Your task to perform on an android device: View the shopping cart on walmart.com. Add "acer predator" to the cart on walmart.com, then select checkout. Image 0: 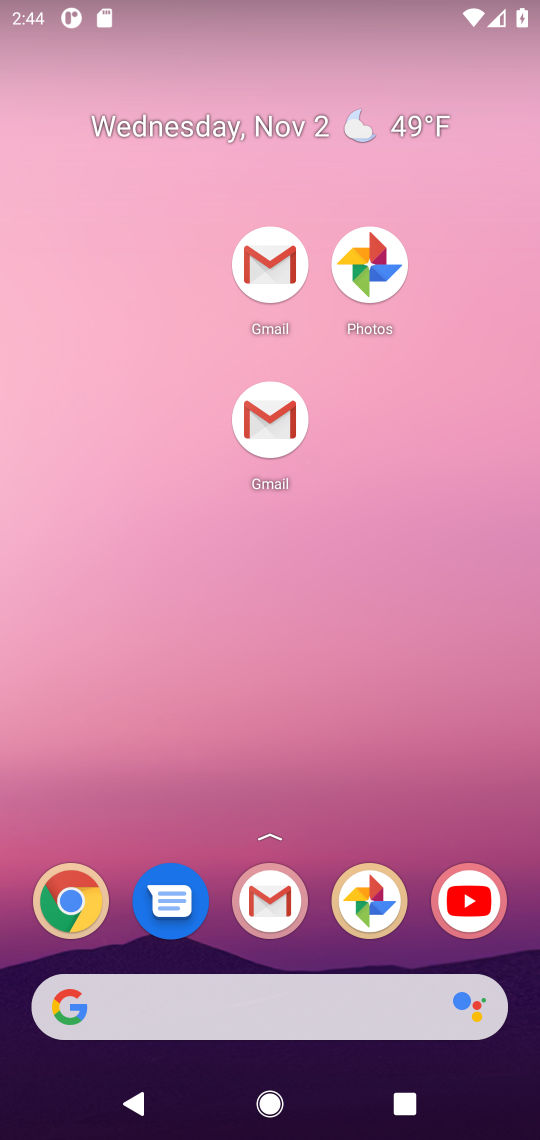
Step 0: drag from (342, 827) to (393, 176)
Your task to perform on an android device: View the shopping cart on walmart.com. Add "acer predator" to the cart on walmart.com, then select checkout. Image 1: 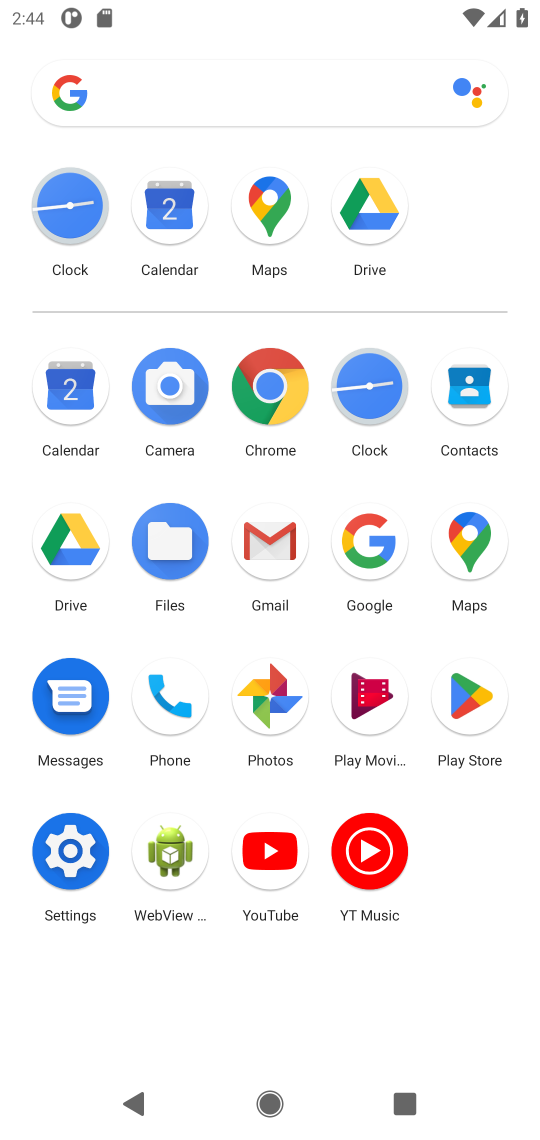
Step 1: click (262, 383)
Your task to perform on an android device: View the shopping cart on walmart.com. Add "acer predator" to the cart on walmart.com, then select checkout. Image 2: 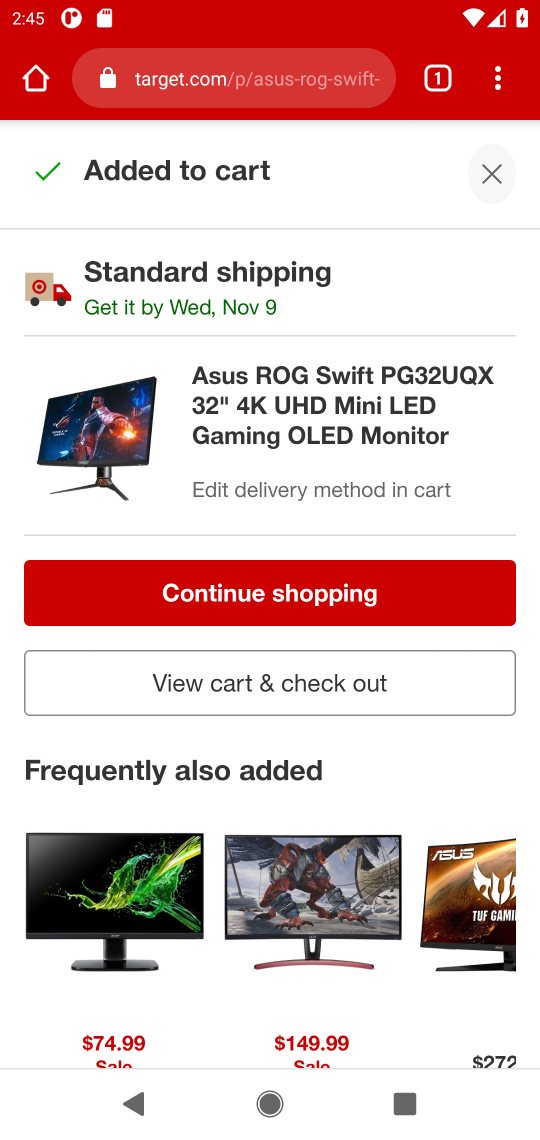
Step 2: click (286, 73)
Your task to perform on an android device: View the shopping cart on walmart.com. Add "acer predator" to the cart on walmart.com, then select checkout. Image 3: 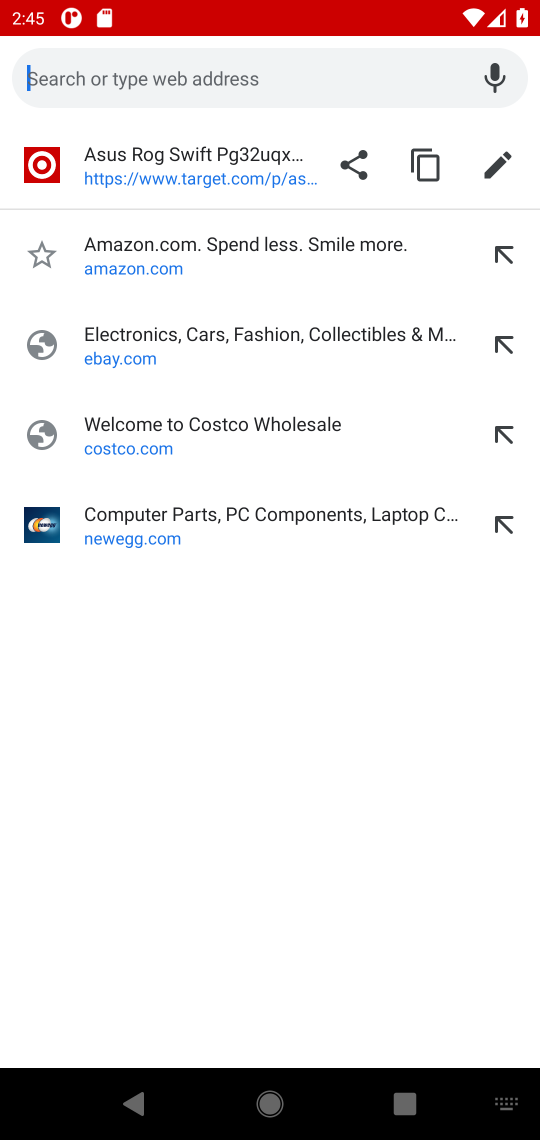
Step 3: type "walmart.com"
Your task to perform on an android device: View the shopping cart on walmart.com. Add "acer predator" to the cart on walmart.com, then select checkout. Image 4: 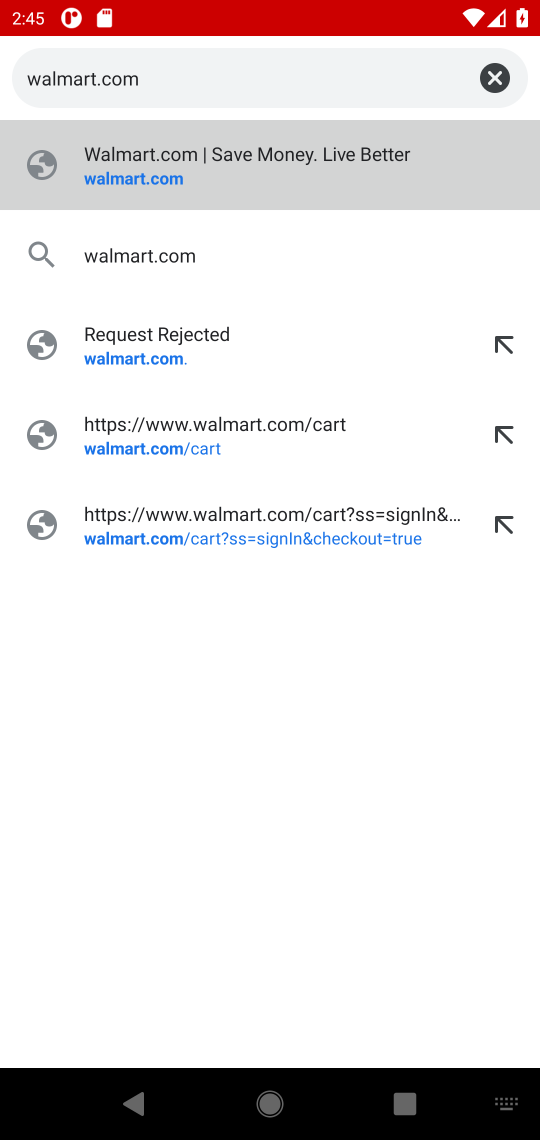
Step 4: press enter
Your task to perform on an android device: View the shopping cart on walmart.com. Add "acer predator" to the cart on walmart.com, then select checkout. Image 5: 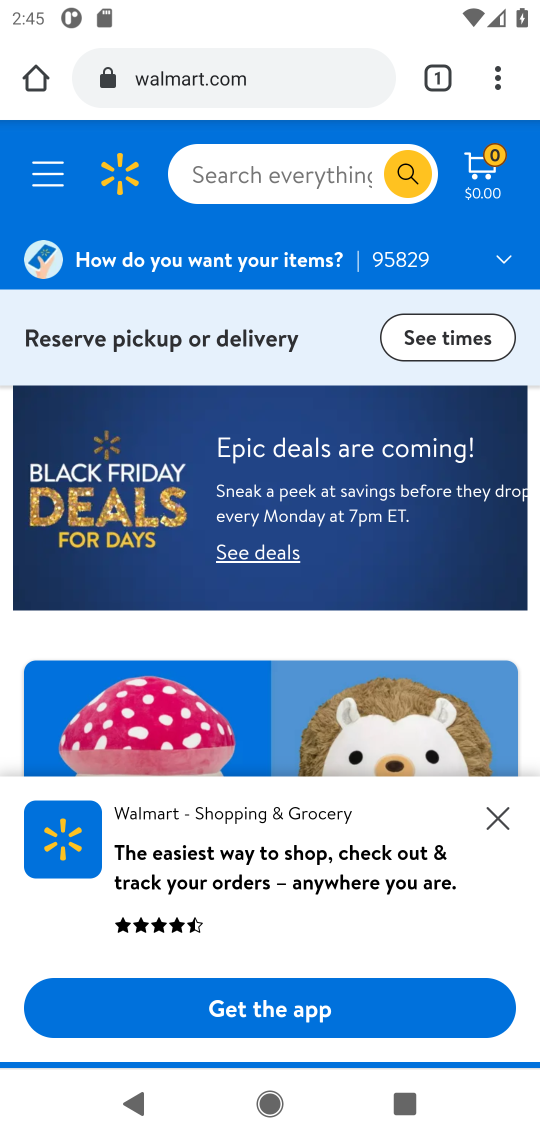
Step 5: click (338, 181)
Your task to perform on an android device: View the shopping cart on walmart.com. Add "acer predator" to the cart on walmart.com, then select checkout. Image 6: 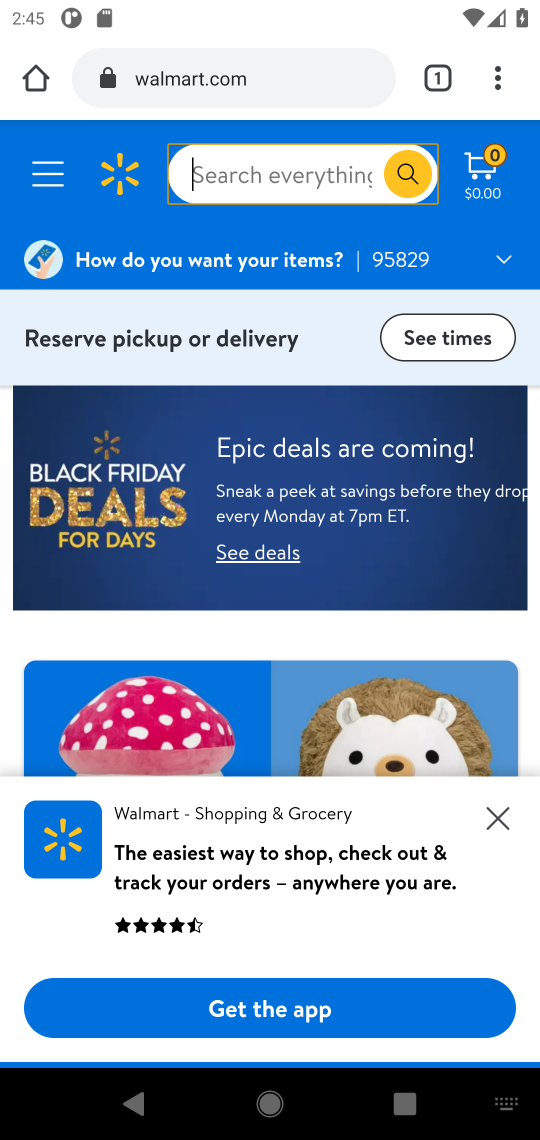
Step 6: type "acer predator"
Your task to perform on an android device: View the shopping cart on walmart.com. Add "acer predator" to the cart on walmart.com, then select checkout. Image 7: 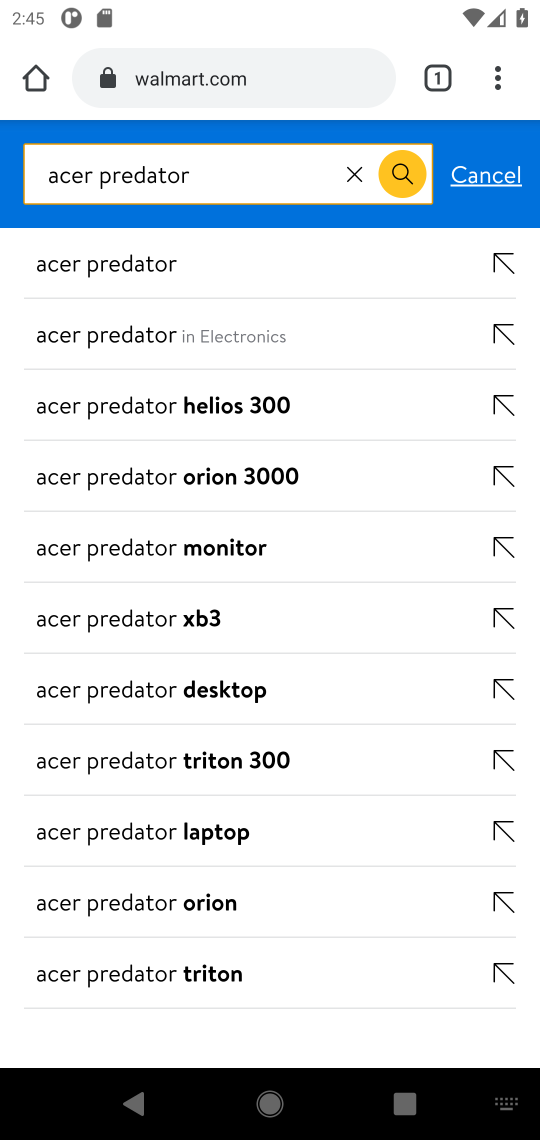
Step 7: press enter
Your task to perform on an android device: View the shopping cart on walmart.com. Add "acer predator" to the cart on walmart.com, then select checkout. Image 8: 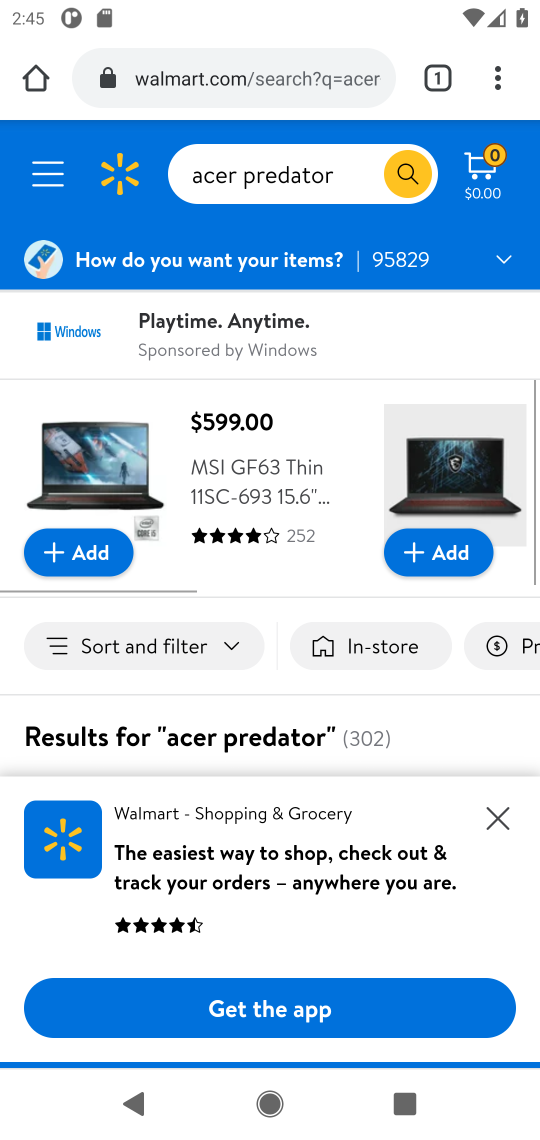
Step 8: drag from (262, 726) to (251, 169)
Your task to perform on an android device: View the shopping cart on walmart.com. Add "acer predator" to the cart on walmart.com, then select checkout. Image 9: 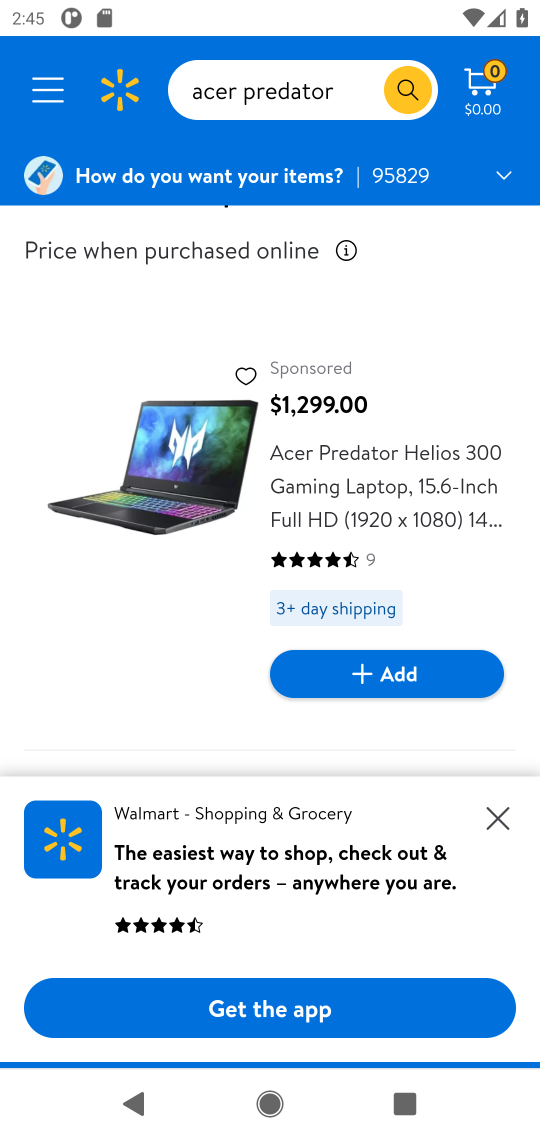
Step 9: click (371, 679)
Your task to perform on an android device: View the shopping cart on walmart.com. Add "acer predator" to the cart on walmart.com, then select checkout. Image 10: 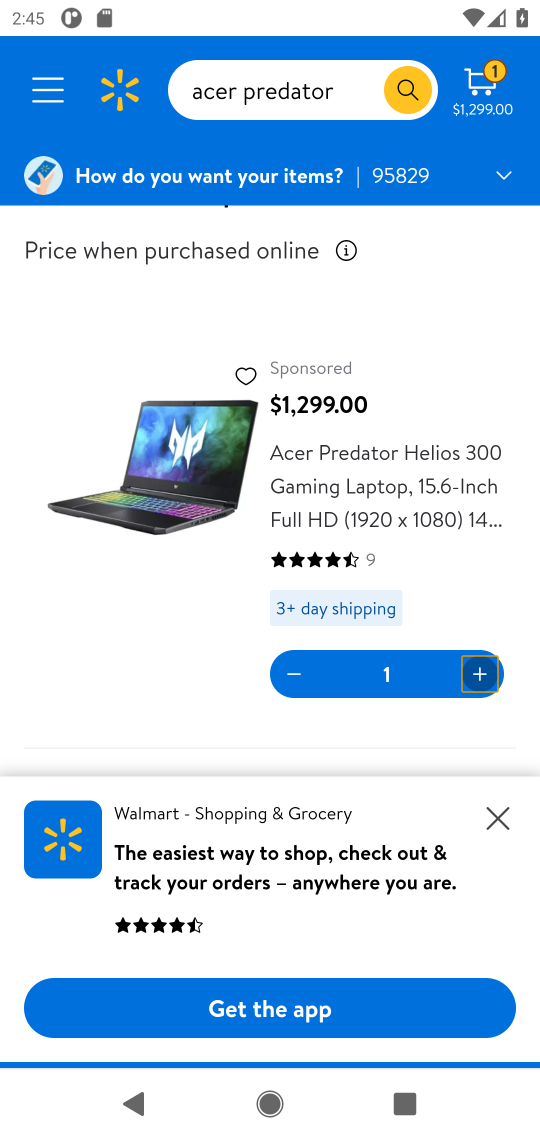
Step 10: drag from (391, 670) to (366, 150)
Your task to perform on an android device: View the shopping cart on walmart.com. Add "acer predator" to the cart on walmart.com, then select checkout. Image 11: 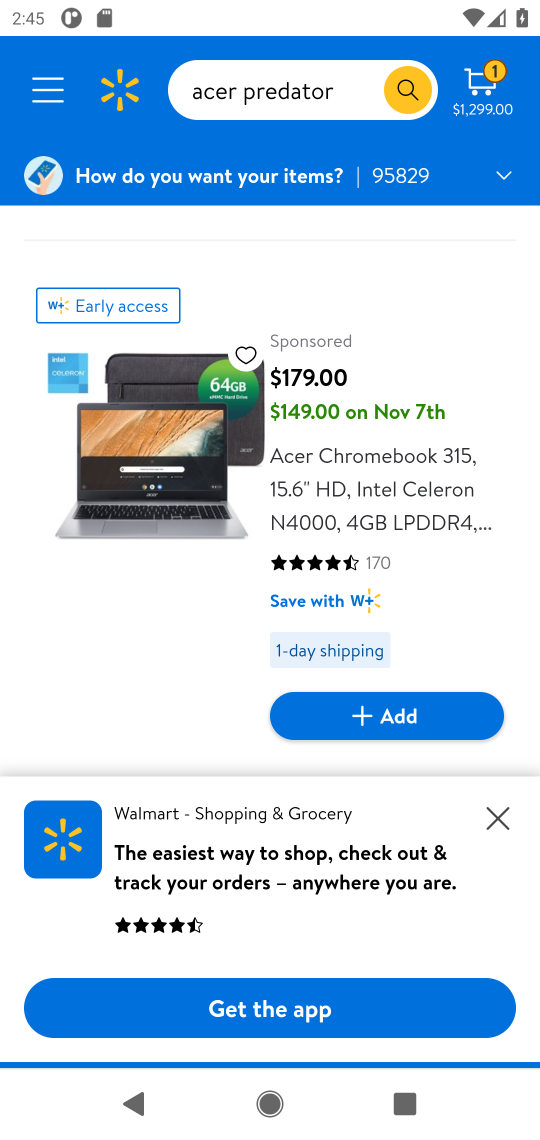
Step 11: drag from (350, 451) to (374, 874)
Your task to perform on an android device: View the shopping cart on walmart.com. Add "acer predator" to the cart on walmart.com, then select checkout. Image 12: 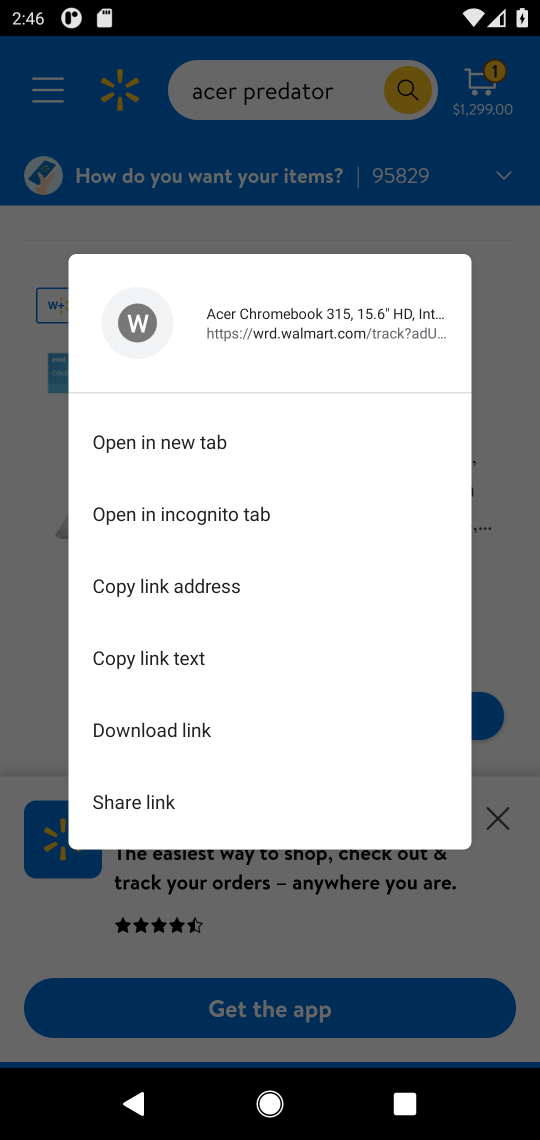
Step 12: click (517, 387)
Your task to perform on an android device: View the shopping cart on walmart.com. Add "acer predator" to the cart on walmart.com, then select checkout. Image 13: 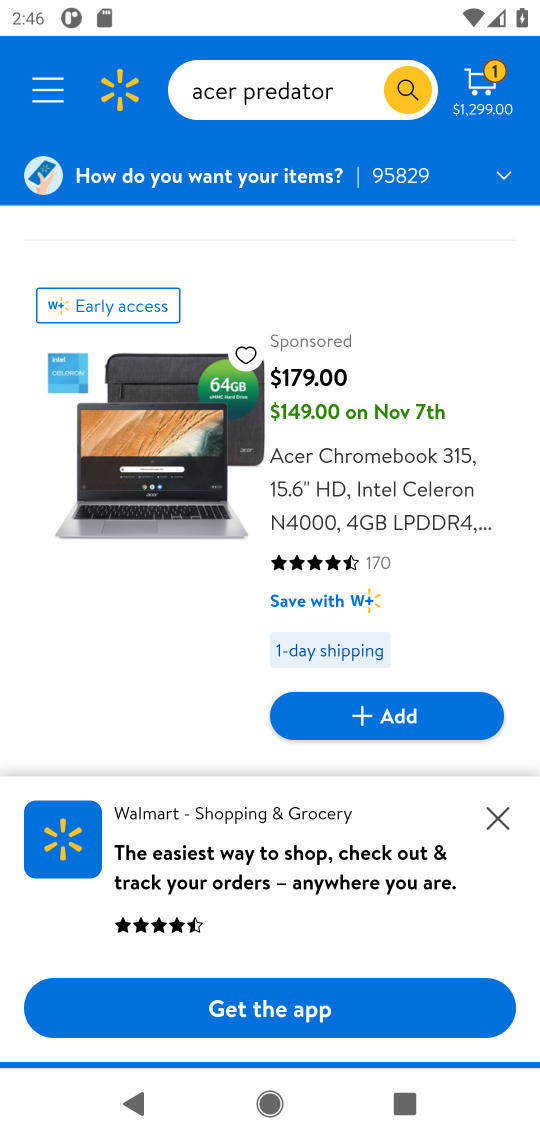
Step 13: drag from (405, 323) to (329, 797)
Your task to perform on an android device: View the shopping cart on walmart.com. Add "acer predator" to the cart on walmart.com, then select checkout. Image 14: 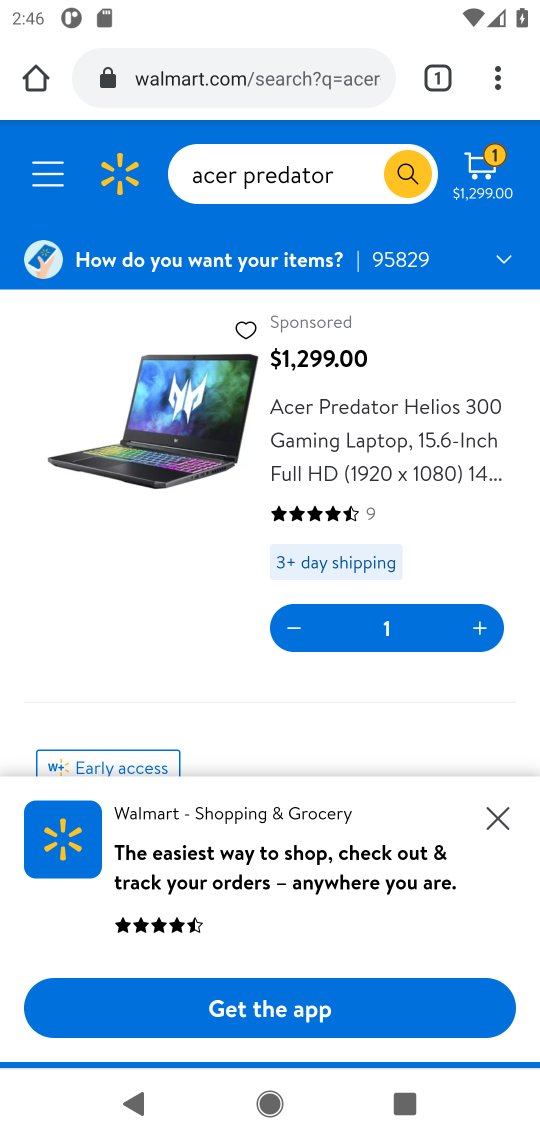
Step 14: click (287, 633)
Your task to perform on an android device: View the shopping cart on walmart.com. Add "acer predator" to the cart on walmart.com, then select checkout. Image 15: 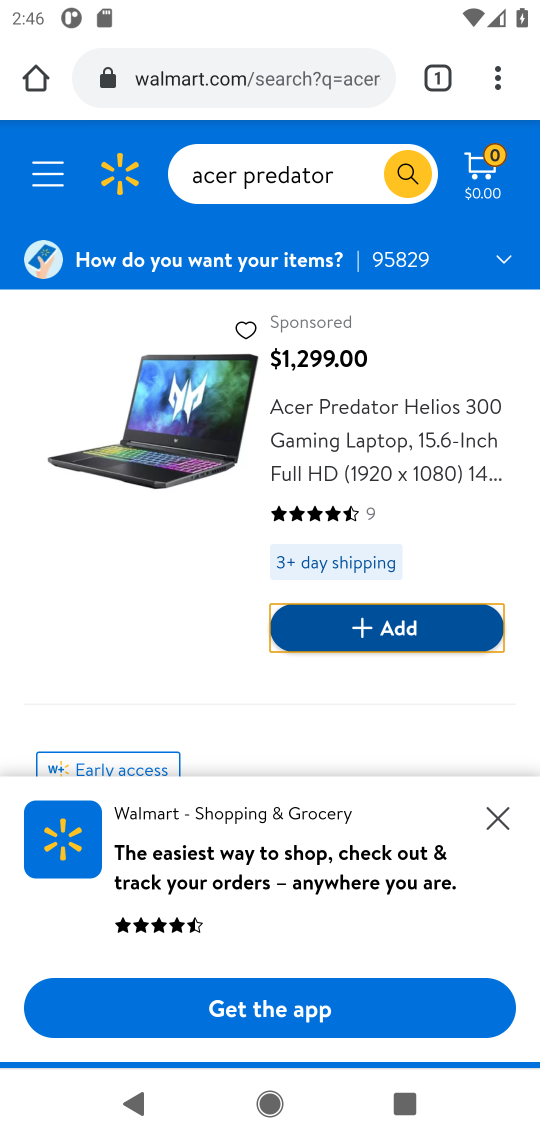
Step 15: drag from (353, 715) to (358, 90)
Your task to perform on an android device: View the shopping cart on walmart.com. Add "acer predator" to the cart on walmart.com, then select checkout. Image 16: 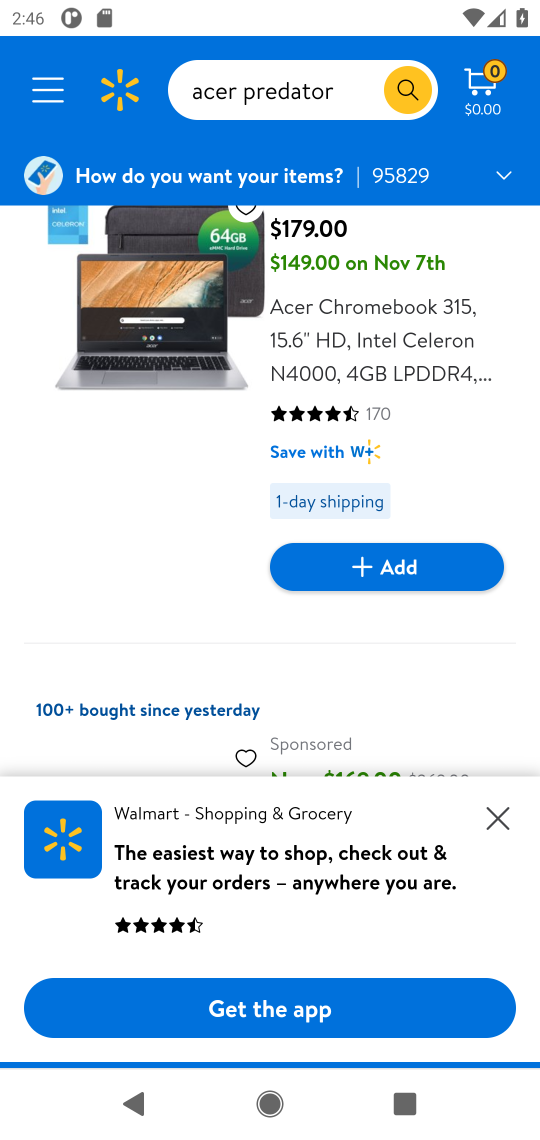
Step 16: drag from (324, 721) to (315, 199)
Your task to perform on an android device: View the shopping cart on walmart.com. Add "acer predator" to the cart on walmart.com, then select checkout. Image 17: 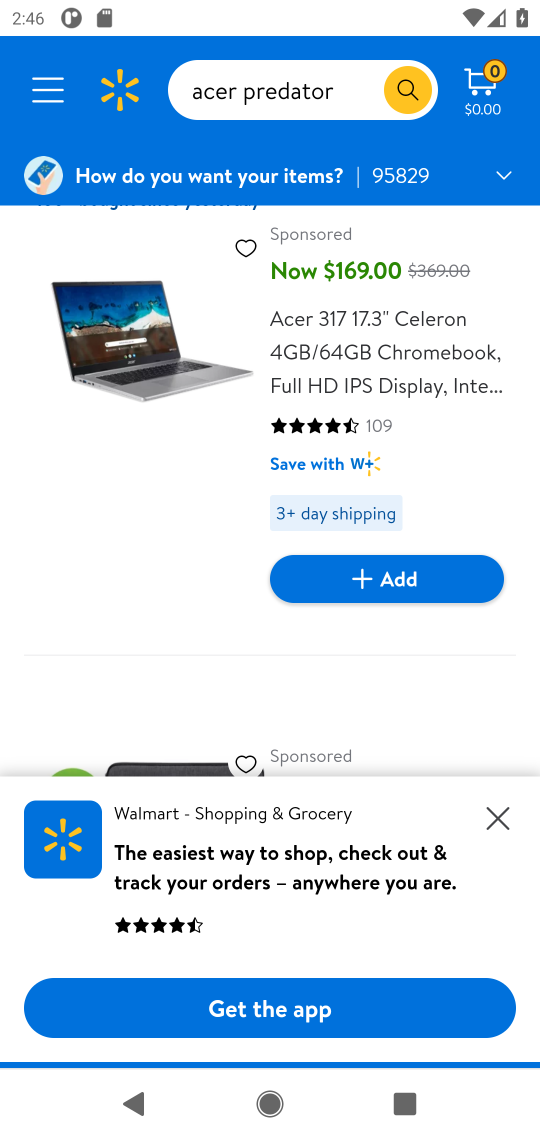
Step 17: drag from (234, 720) to (234, 260)
Your task to perform on an android device: View the shopping cart on walmart.com. Add "acer predator" to the cart on walmart.com, then select checkout. Image 18: 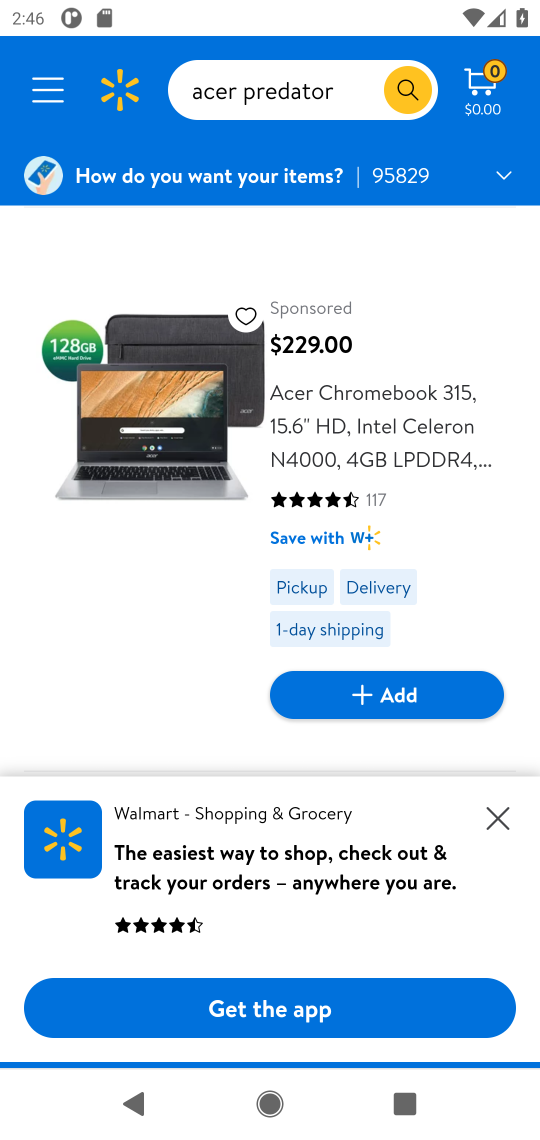
Step 18: drag from (203, 681) to (189, 235)
Your task to perform on an android device: View the shopping cart on walmart.com. Add "acer predator" to the cart on walmart.com, then select checkout. Image 19: 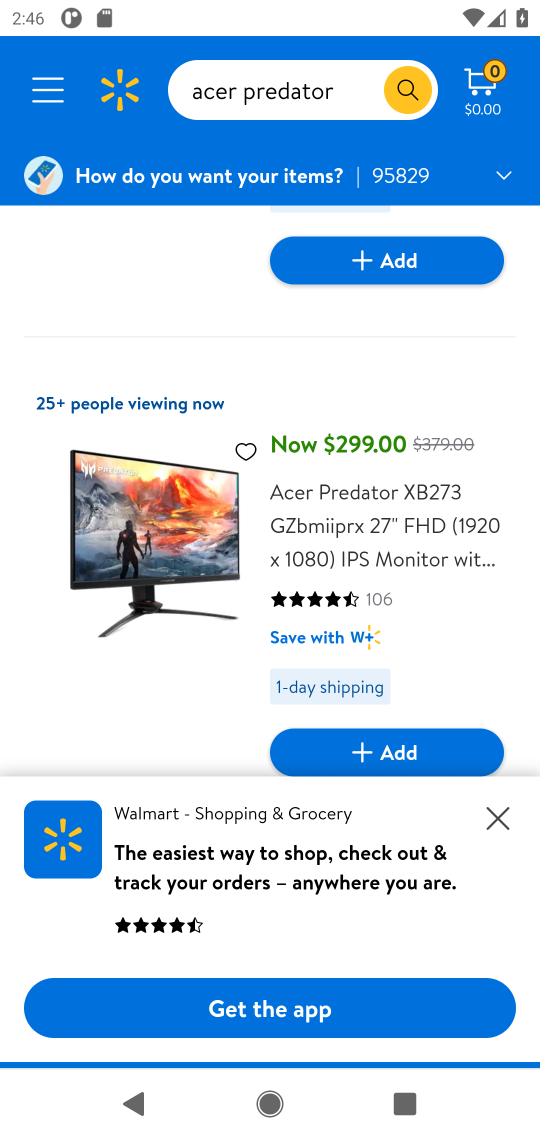
Step 19: click (429, 770)
Your task to perform on an android device: View the shopping cart on walmart.com. Add "acer predator" to the cart on walmart.com, then select checkout. Image 20: 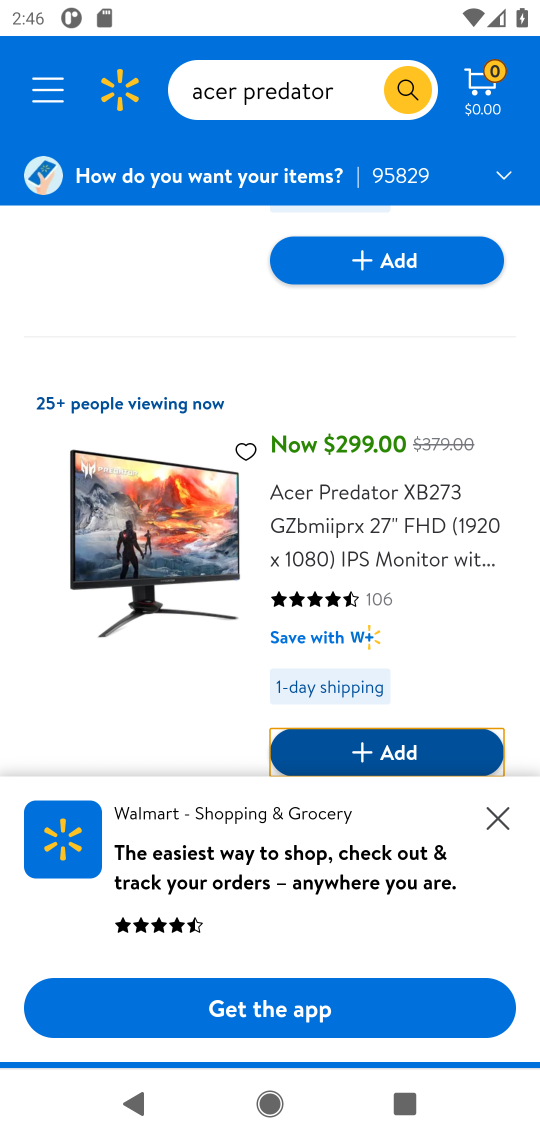
Step 20: click (411, 756)
Your task to perform on an android device: View the shopping cart on walmart.com. Add "acer predator" to the cart on walmart.com, then select checkout. Image 21: 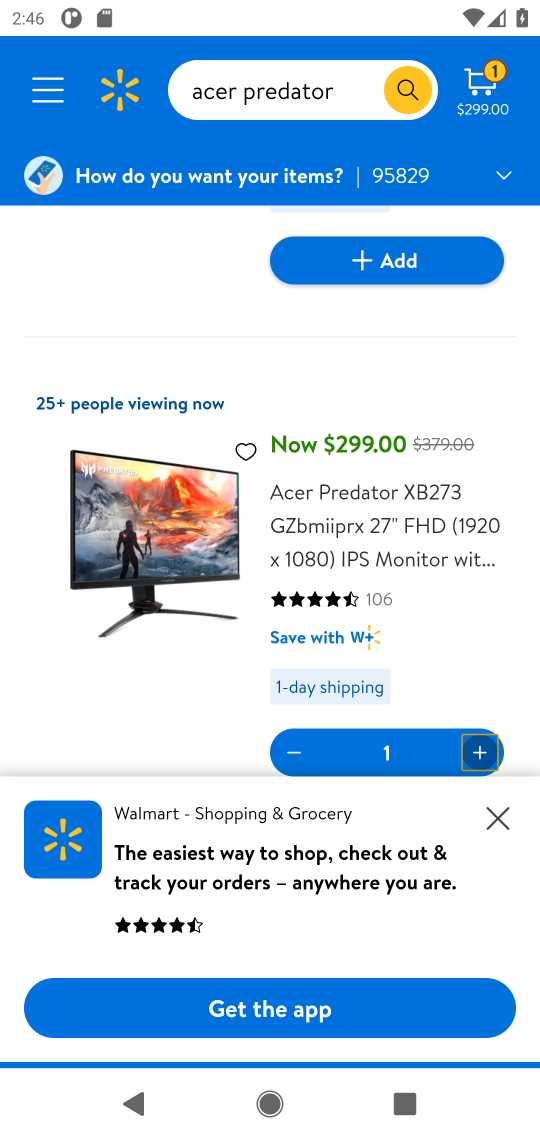
Step 21: click (484, 88)
Your task to perform on an android device: View the shopping cart on walmart.com. Add "acer predator" to the cart on walmart.com, then select checkout. Image 22: 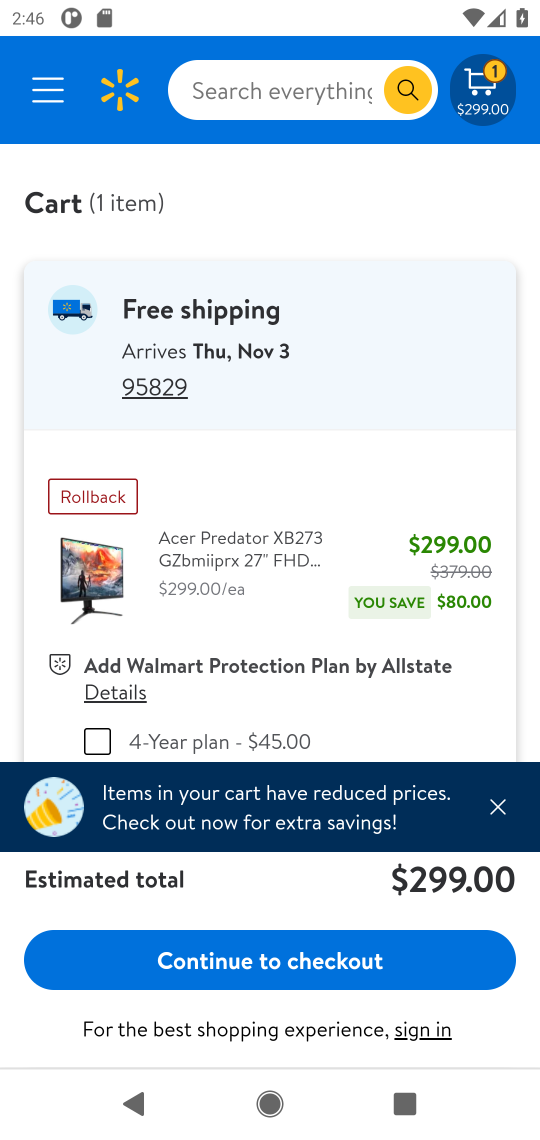
Step 22: click (285, 960)
Your task to perform on an android device: View the shopping cart on walmart.com. Add "acer predator" to the cart on walmart.com, then select checkout. Image 23: 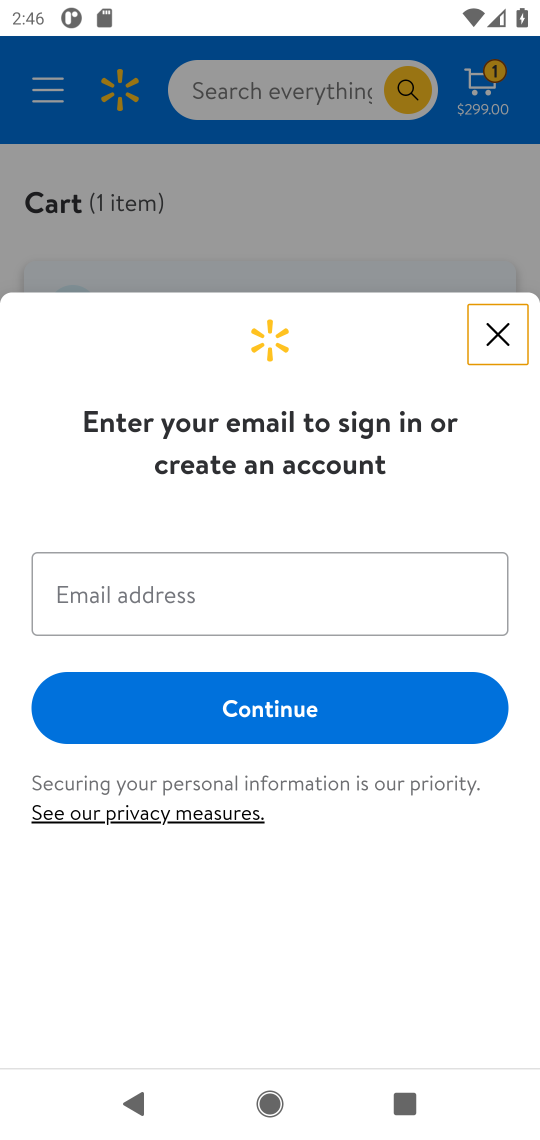
Step 23: task complete